Your task to perform on an android device: Search for sushi restaurants on Maps Image 0: 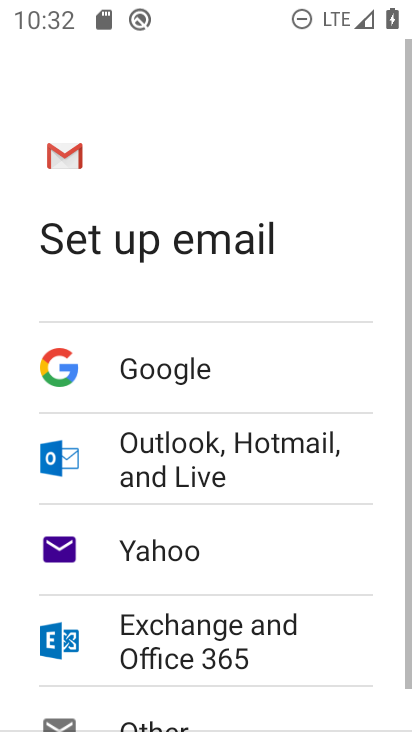
Step 0: press home button
Your task to perform on an android device: Search for sushi restaurants on Maps Image 1: 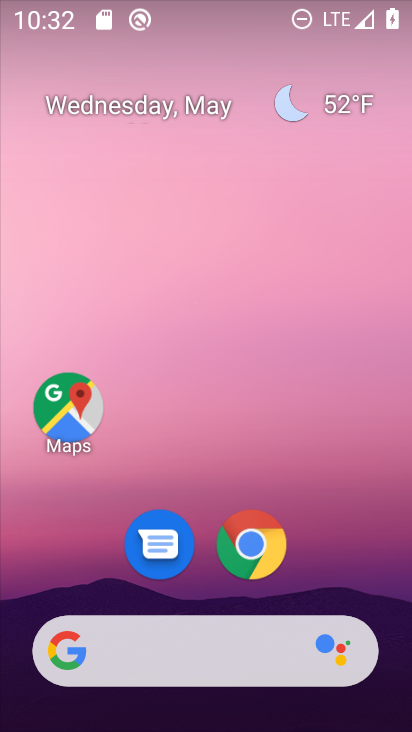
Step 1: click (67, 405)
Your task to perform on an android device: Search for sushi restaurants on Maps Image 2: 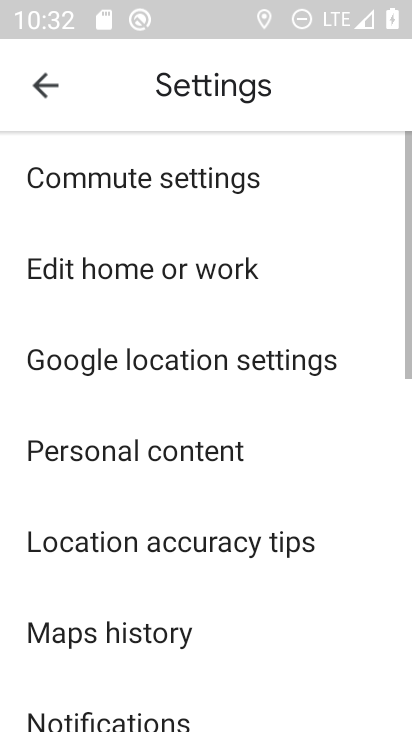
Step 2: click (90, 117)
Your task to perform on an android device: Search for sushi restaurants on Maps Image 3: 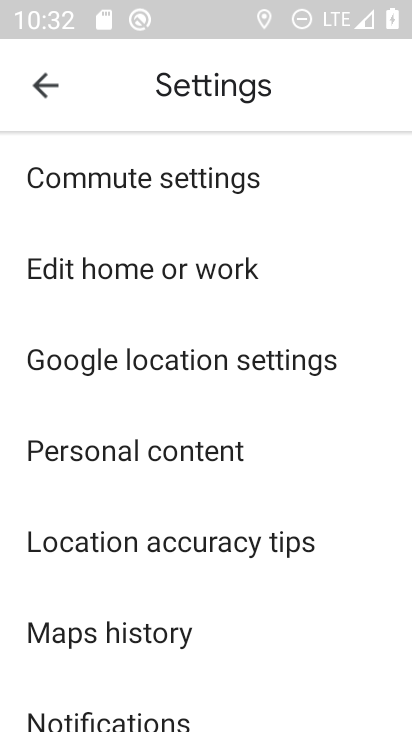
Step 3: click (62, 93)
Your task to perform on an android device: Search for sushi restaurants on Maps Image 4: 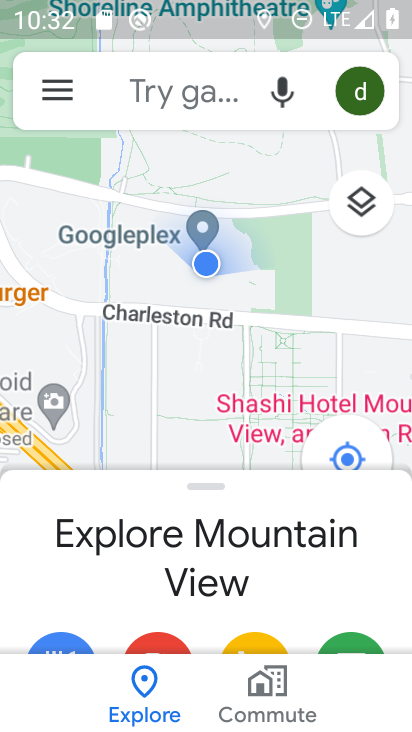
Step 4: click (98, 94)
Your task to perform on an android device: Search for sushi restaurants on Maps Image 5: 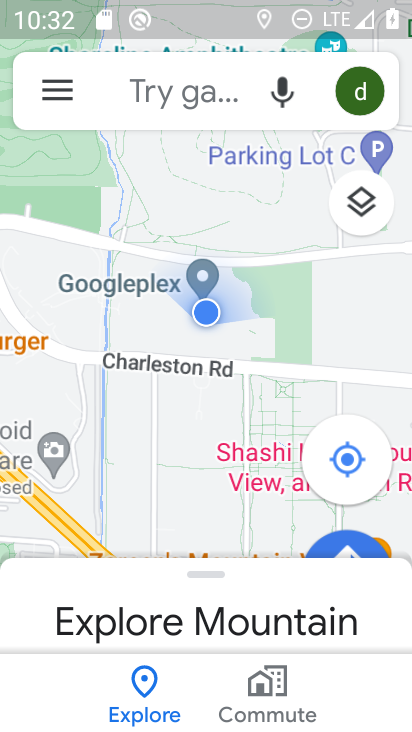
Step 5: click (187, 88)
Your task to perform on an android device: Search for sushi restaurants on Maps Image 6: 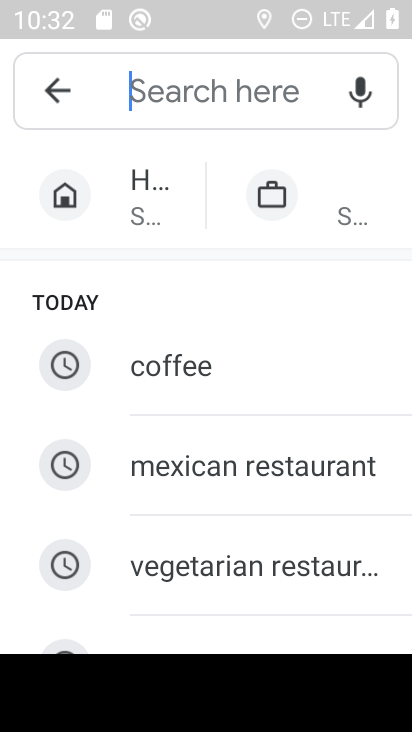
Step 6: type "sushi restaurant"
Your task to perform on an android device: Search for sushi restaurants on Maps Image 7: 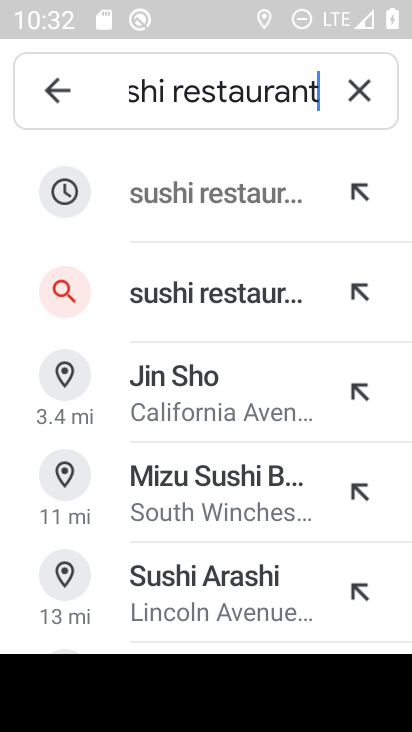
Step 7: click (261, 310)
Your task to perform on an android device: Search for sushi restaurants on Maps Image 8: 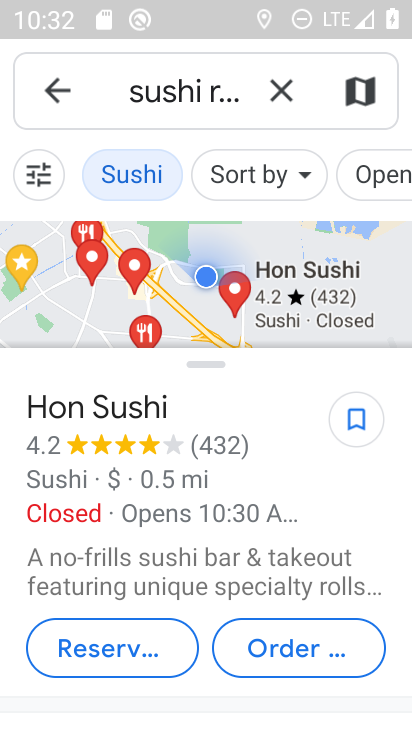
Step 8: task complete